Your task to perform on an android device: open app "ColorNote Notepad Notes" (install if not already installed) and enter user name: "unbridled@gmail.com" and password: "regularly" Image 0: 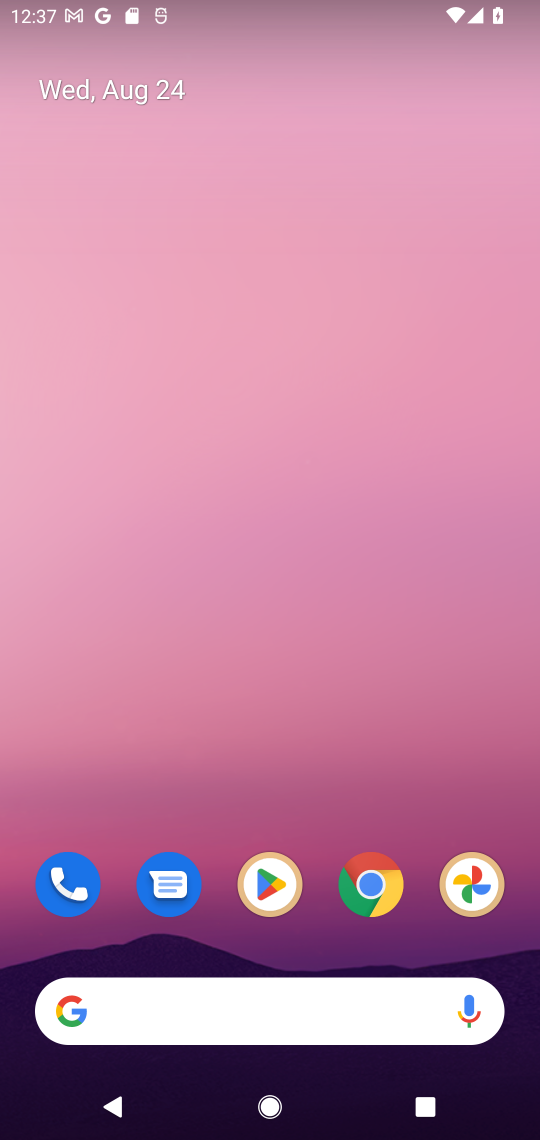
Step 0: drag from (211, 1003) to (279, 2)
Your task to perform on an android device: open app "ColorNote Notepad Notes" (install if not already installed) and enter user name: "unbridled@gmail.com" and password: "regularly" Image 1: 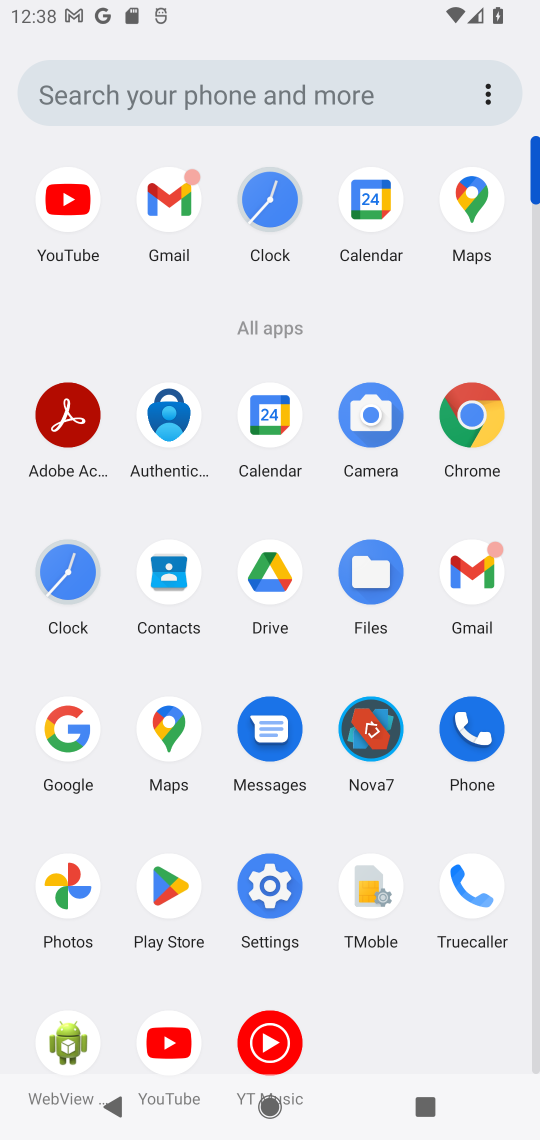
Step 1: click (177, 888)
Your task to perform on an android device: open app "ColorNote Notepad Notes" (install if not already installed) and enter user name: "unbridled@gmail.com" and password: "regularly" Image 2: 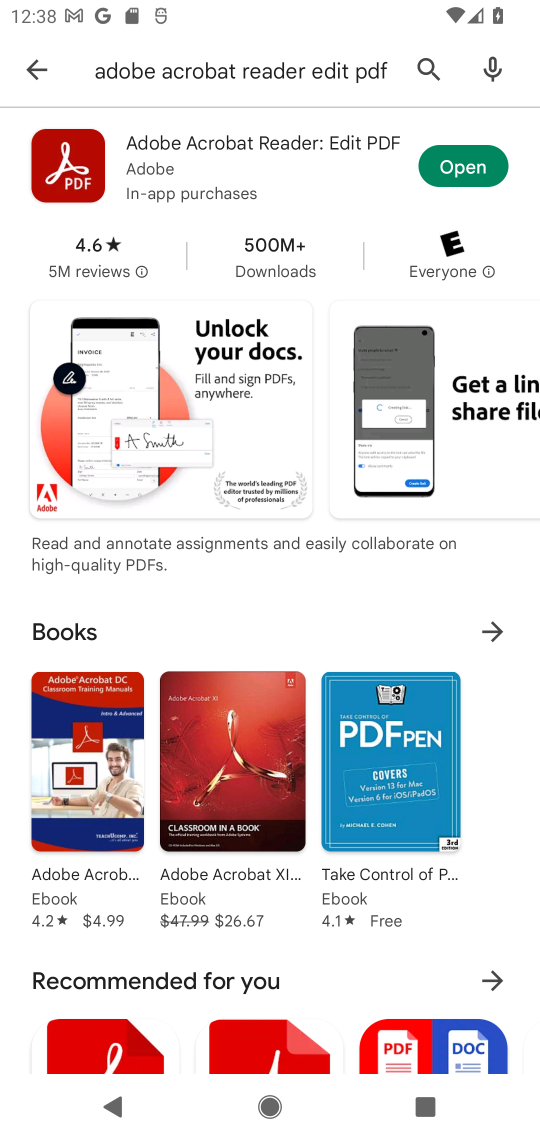
Step 2: press back button
Your task to perform on an android device: open app "ColorNote Notepad Notes" (install if not already installed) and enter user name: "unbridled@gmail.com" and password: "regularly" Image 3: 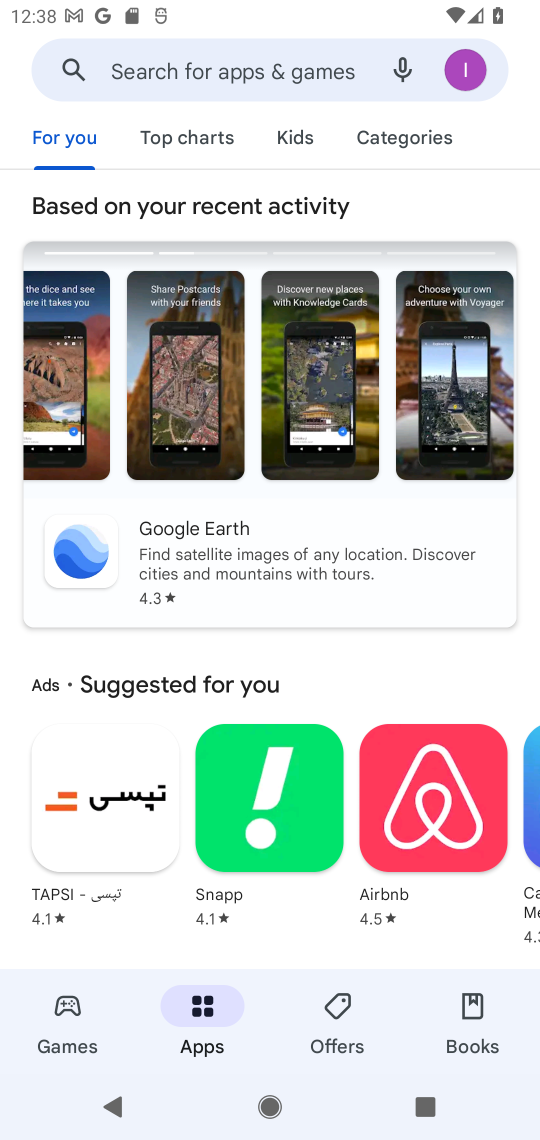
Step 3: click (342, 69)
Your task to perform on an android device: open app "ColorNote Notepad Notes" (install if not already installed) and enter user name: "unbridled@gmail.com" and password: "regularly" Image 4: 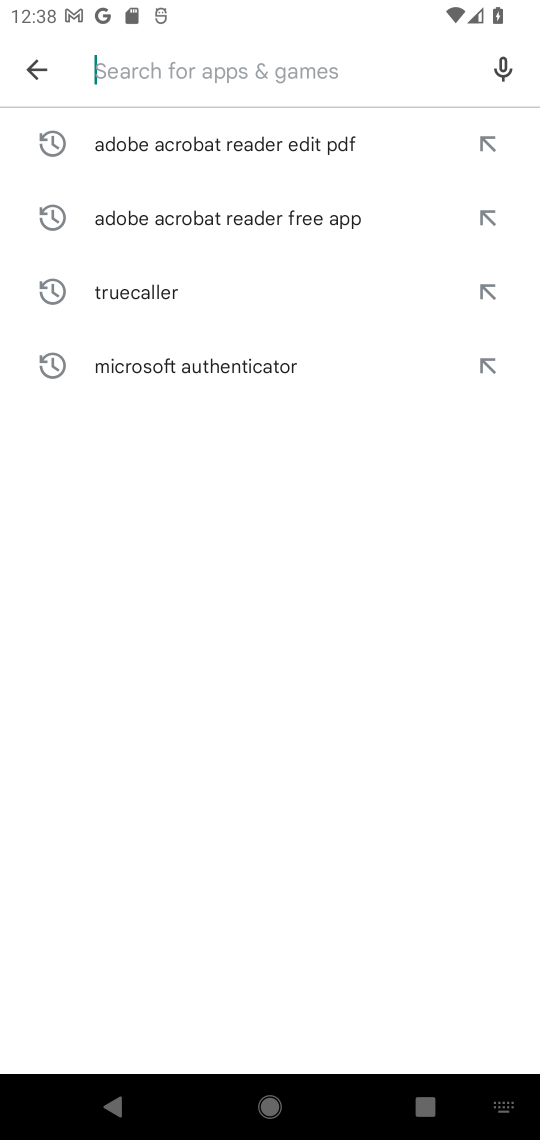
Step 4: type "ColorNote Notepad Notes"
Your task to perform on an android device: open app "ColorNote Notepad Notes" (install if not already installed) and enter user name: "unbridled@gmail.com" and password: "regularly" Image 5: 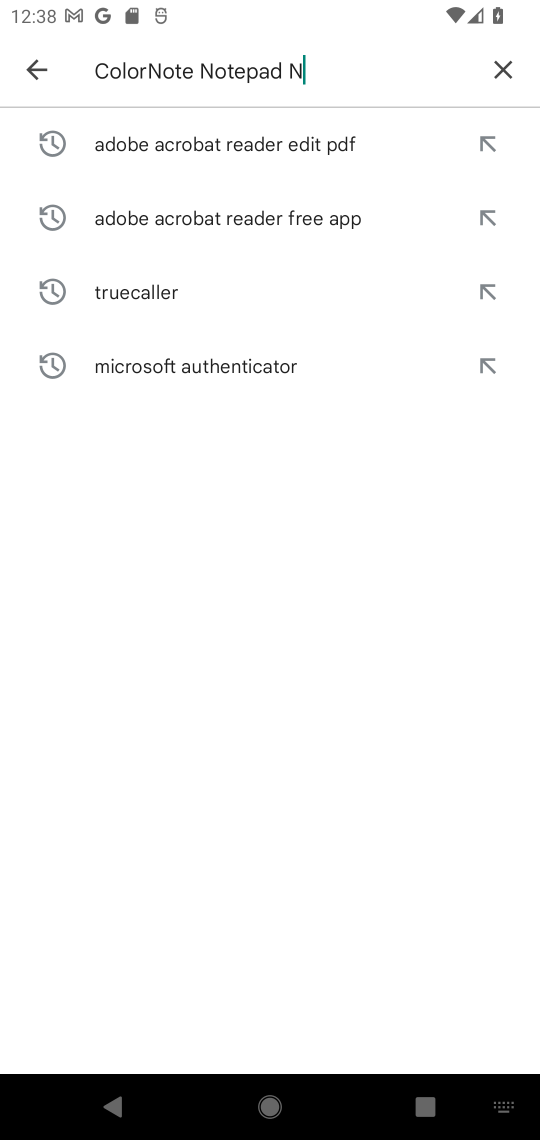
Step 5: type ""
Your task to perform on an android device: open app "ColorNote Notepad Notes" (install if not already installed) and enter user name: "unbridled@gmail.com" and password: "regularly" Image 6: 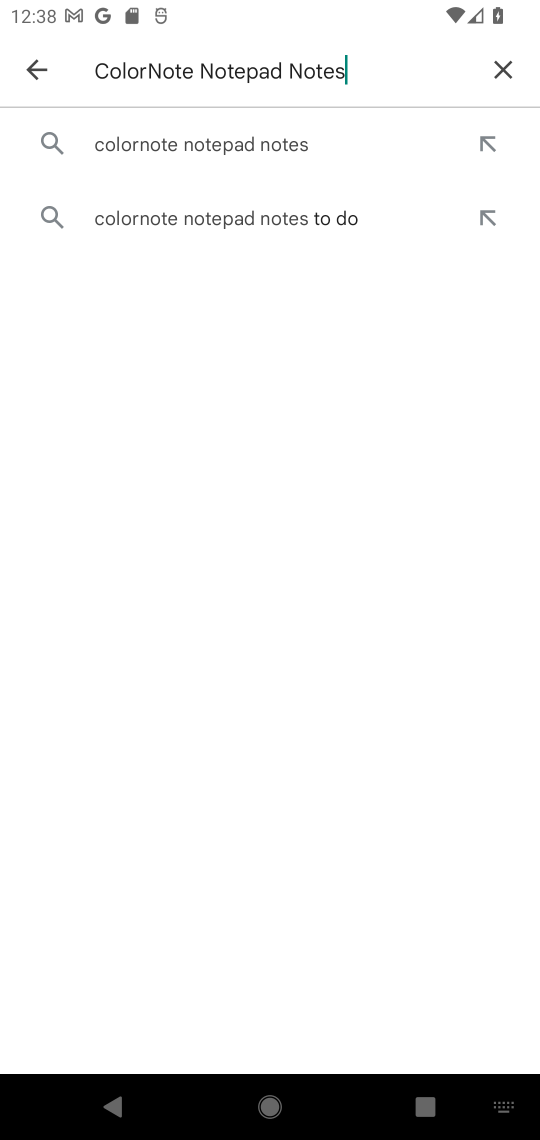
Step 6: click (246, 141)
Your task to perform on an android device: open app "ColorNote Notepad Notes" (install if not already installed) and enter user name: "unbridled@gmail.com" and password: "regularly" Image 7: 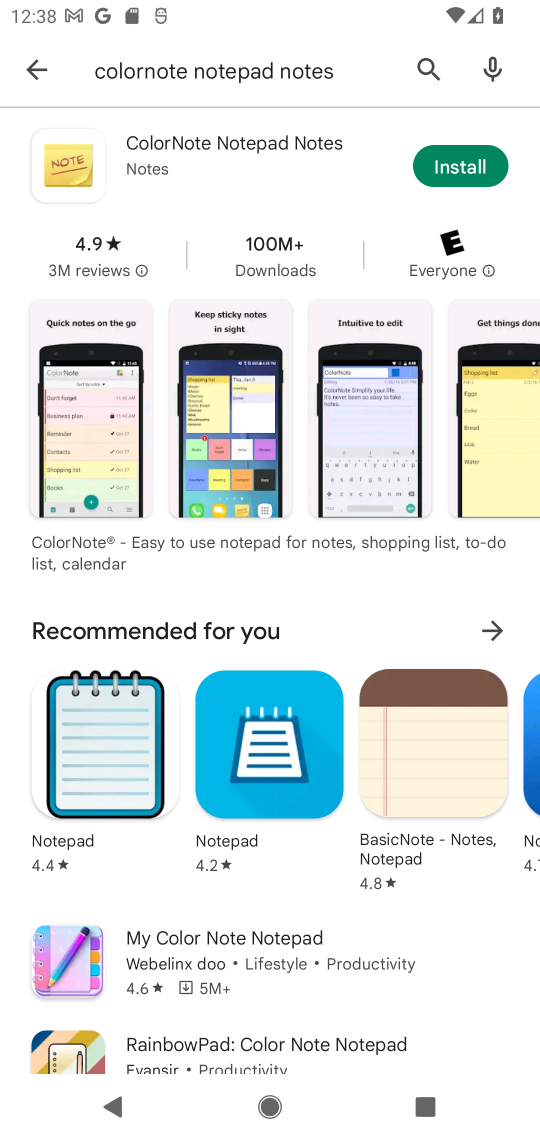
Step 7: click (459, 165)
Your task to perform on an android device: open app "ColorNote Notepad Notes" (install if not already installed) and enter user name: "unbridled@gmail.com" and password: "regularly" Image 8: 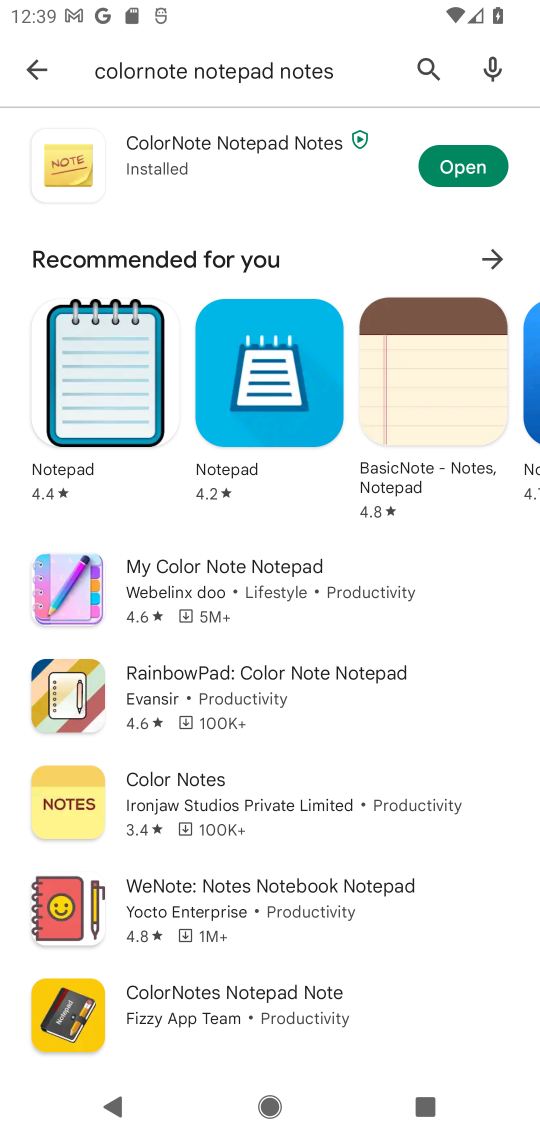
Step 8: click (459, 165)
Your task to perform on an android device: open app "ColorNote Notepad Notes" (install if not already installed) and enter user name: "unbridled@gmail.com" and password: "regularly" Image 9: 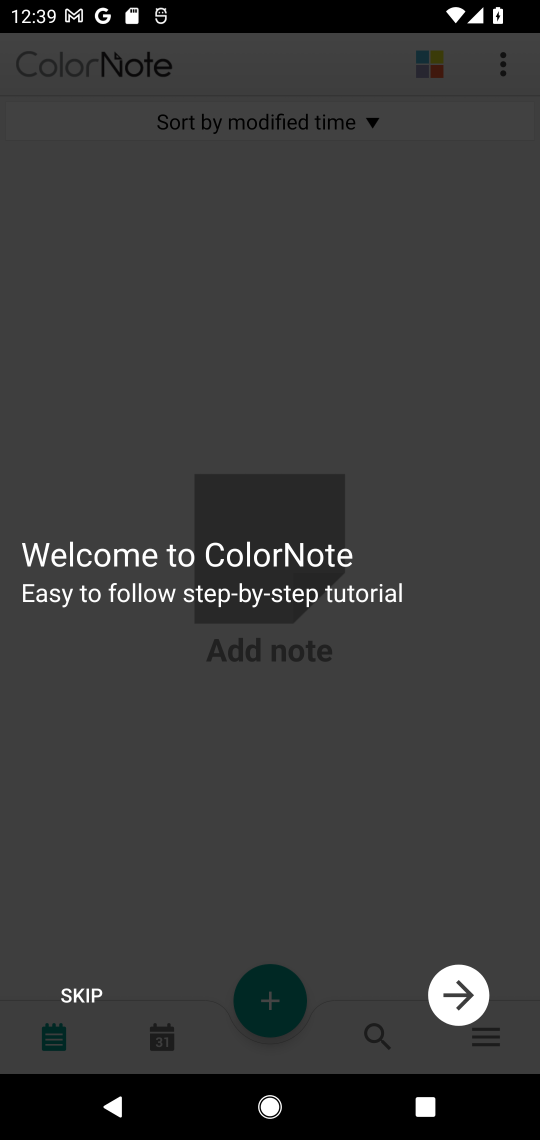
Step 9: click (456, 993)
Your task to perform on an android device: open app "ColorNote Notepad Notes" (install if not already installed) and enter user name: "unbridled@gmail.com" and password: "regularly" Image 10: 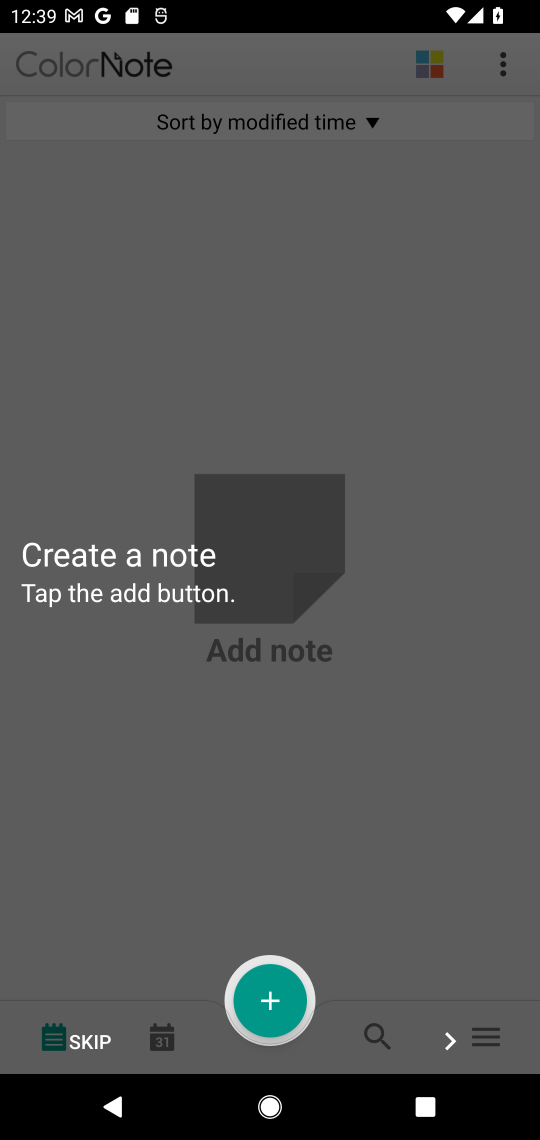
Step 10: click (449, 1035)
Your task to perform on an android device: open app "ColorNote Notepad Notes" (install if not already installed) and enter user name: "unbridled@gmail.com" and password: "regularly" Image 11: 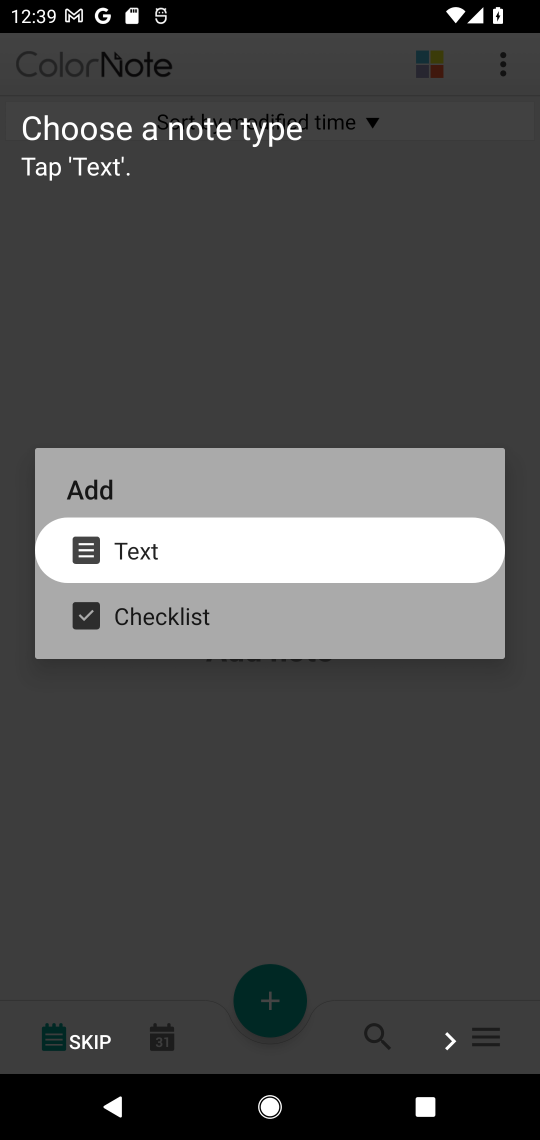
Step 11: click (462, 1031)
Your task to perform on an android device: open app "ColorNote Notepad Notes" (install if not already installed) and enter user name: "unbridled@gmail.com" and password: "regularly" Image 12: 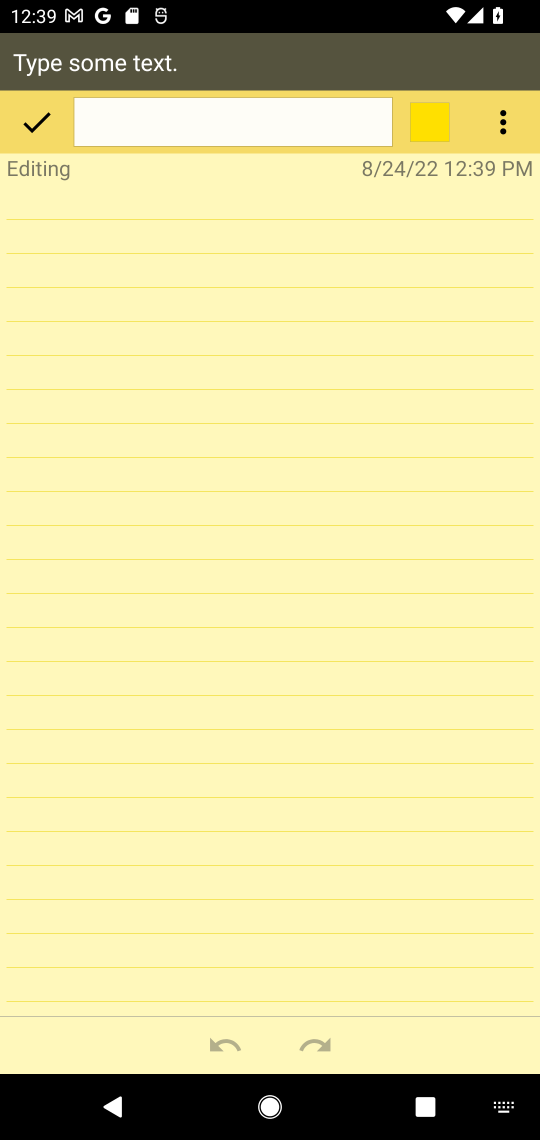
Step 12: task complete